Your task to perform on an android device: toggle javascript in the chrome app Image 0: 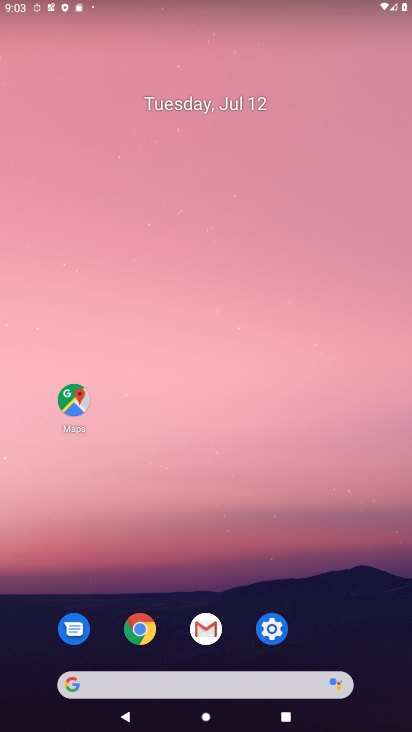
Step 0: click (144, 620)
Your task to perform on an android device: toggle javascript in the chrome app Image 1: 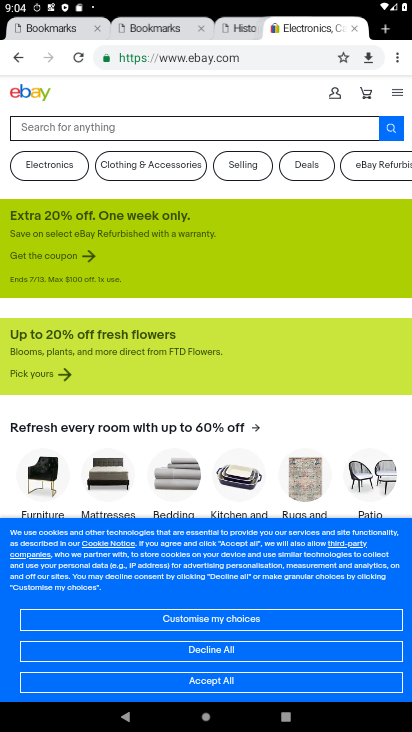
Step 1: click (401, 59)
Your task to perform on an android device: toggle javascript in the chrome app Image 2: 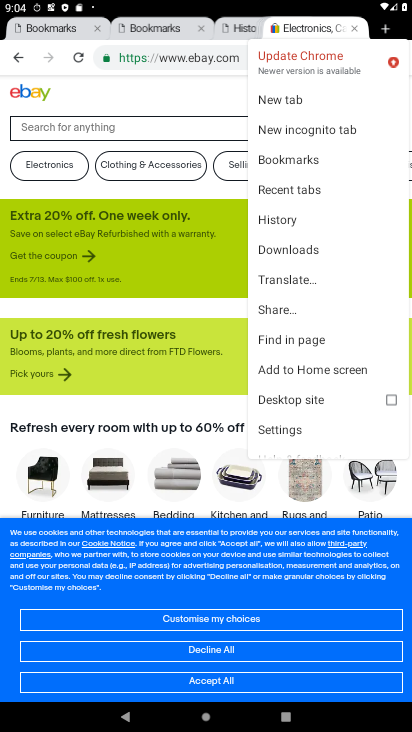
Step 2: click (284, 429)
Your task to perform on an android device: toggle javascript in the chrome app Image 3: 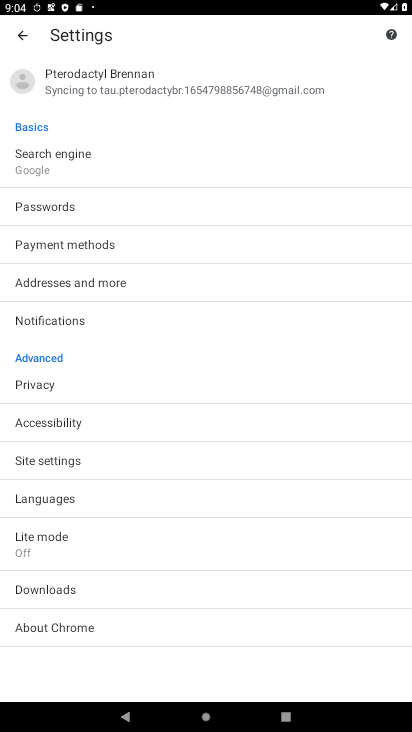
Step 3: click (70, 461)
Your task to perform on an android device: toggle javascript in the chrome app Image 4: 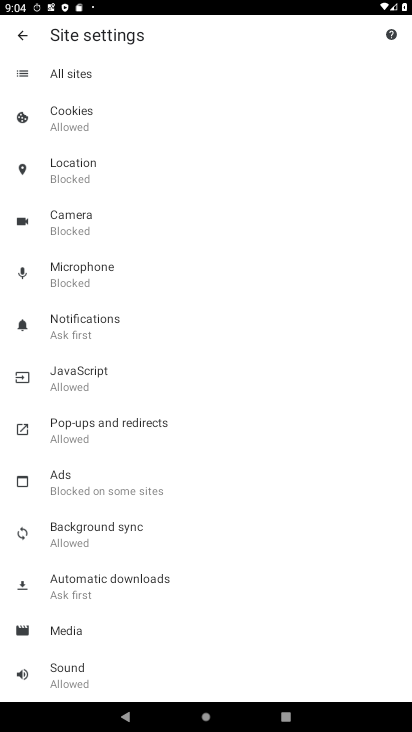
Step 4: click (112, 375)
Your task to perform on an android device: toggle javascript in the chrome app Image 5: 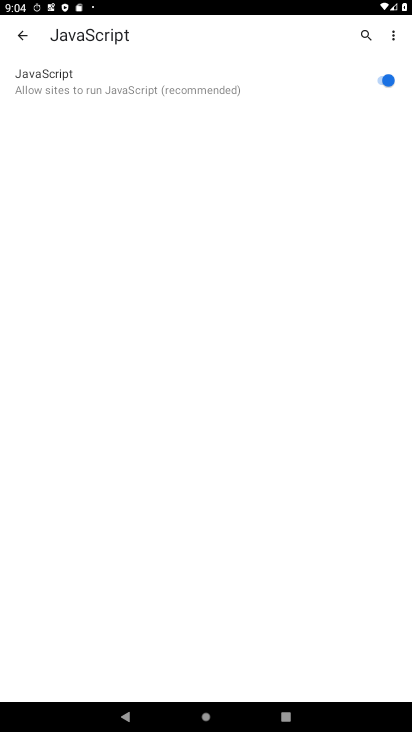
Step 5: task complete